Your task to perform on an android device: toggle notification dots Image 0: 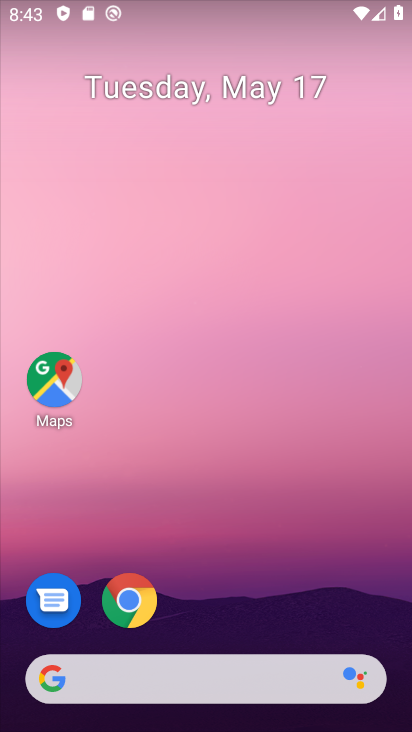
Step 0: drag from (288, 595) to (269, 144)
Your task to perform on an android device: toggle notification dots Image 1: 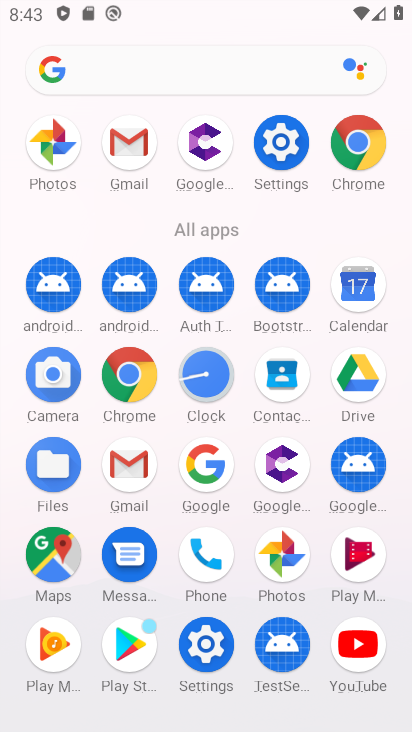
Step 1: click (269, 129)
Your task to perform on an android device: toggle notification dots Image 2: 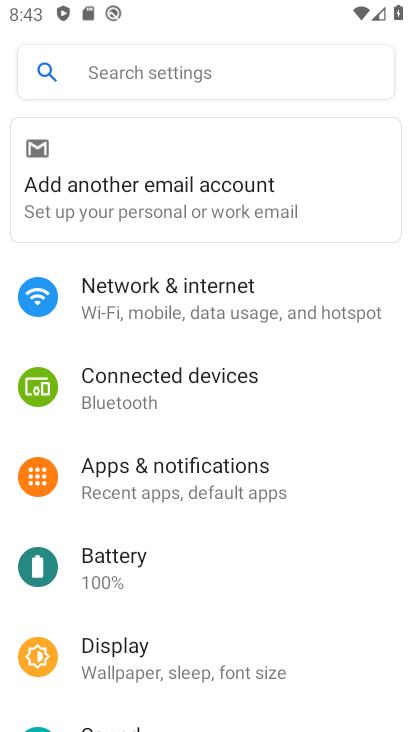
Step 2: click (201, 483)
Your task to perform on an android device: toggle notification dots Image 3: 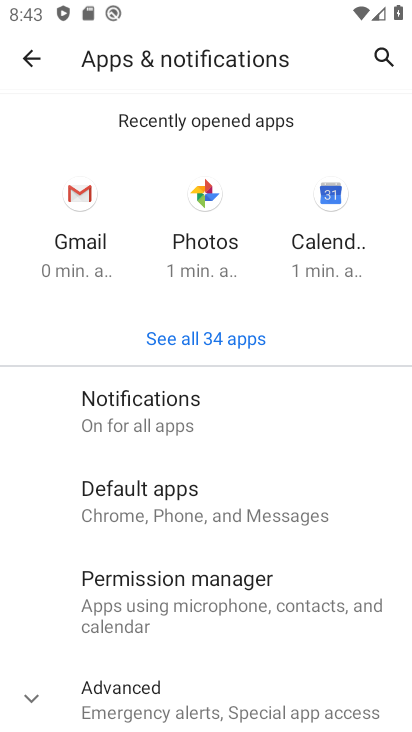
Step 3: click (162, 425)
Your task to perform on an android device: toggle notification dots Image 4: 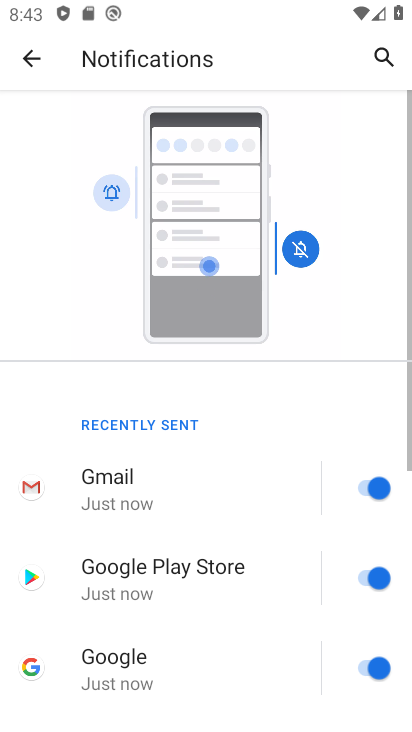
Step 4: drag from (205, 606) to (221, 278)
Your task to perform on an android device: toggle notification dots Image 5: 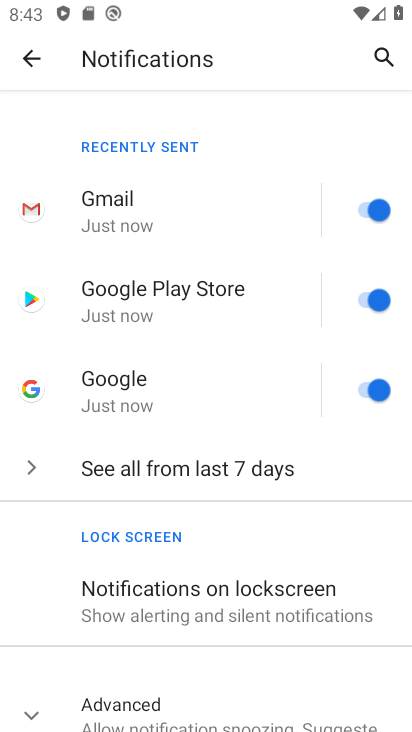
Step 5: drag from (227, 554) to (224, 215)
Your task to perform on an android device: toggle notification dots Image 6: 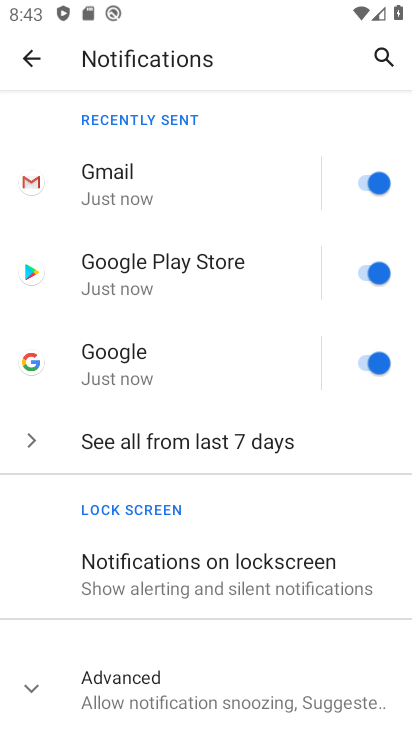
Step 6: click (239, 679)
Your task to perform on an android device: toggle notification dots Image 7: 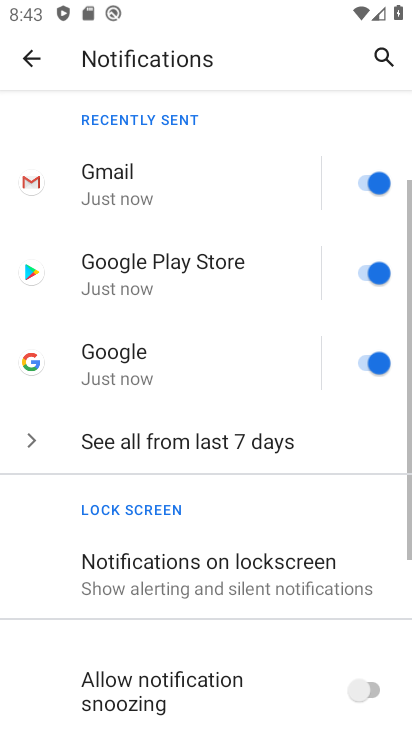
Step 7: drag from (240, 593) to (250, 203)
Your task to perform on an android device: toggle notification dots Image 8: 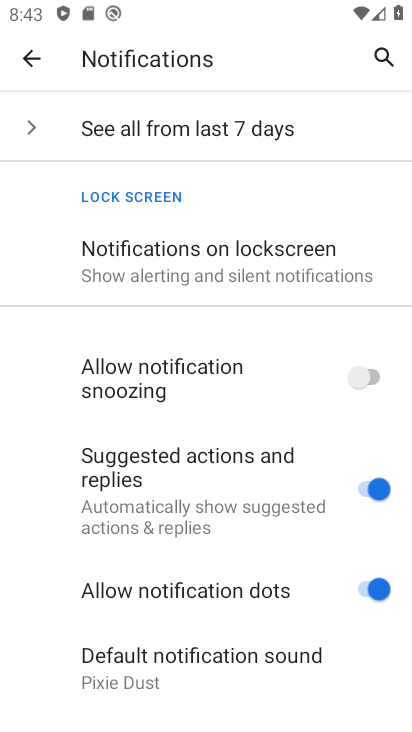
Step 8: click (356, 585)
Your task to perform on an android device: toggle notification dots Image 9: 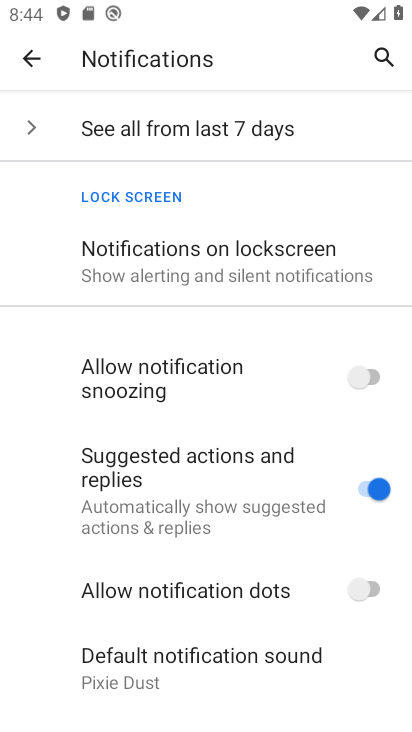
Step 9: task complete